Your task to perform on an android device: Search for Mexican restaurants on Maps Image 0: 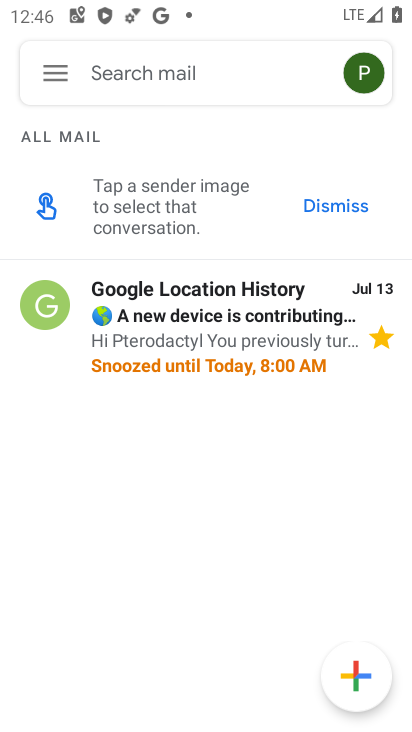
Step 0: press home button
Your task to perform on an android device: Search for Mexican restaurants on Maps Image 1: 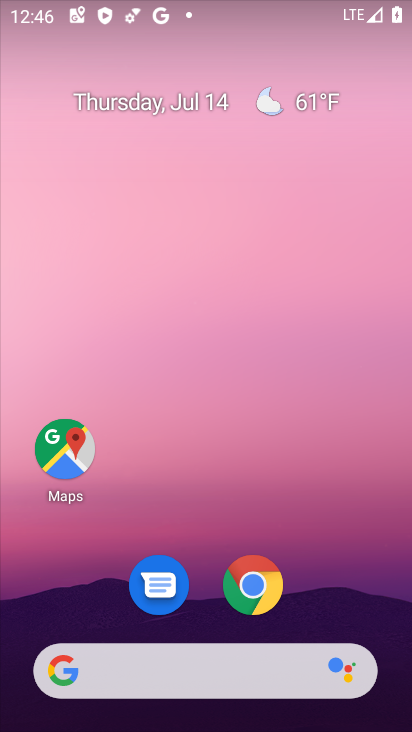
Step 1: click (66, 471)
Your task to perform on an android device: Search for Mexican restaurants on Maps Image 2: 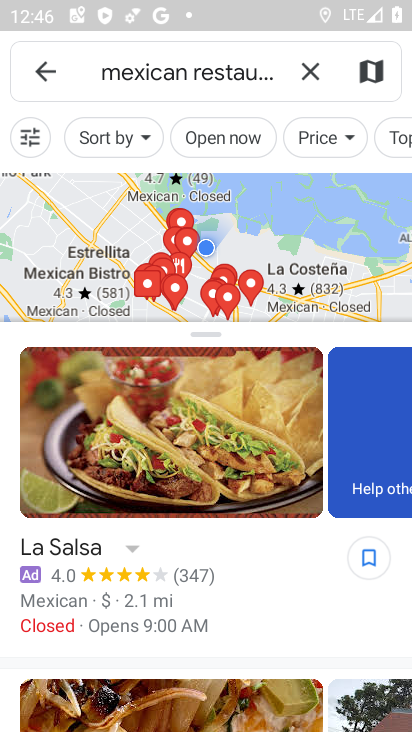
Step 2: click (312, 69)
Your task to perform on an android device: Search for Mexican restaurants on Maps Image 3: 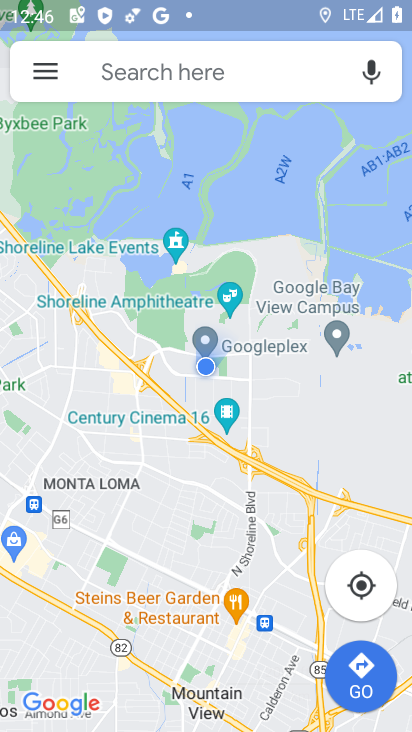
Step 3: click (264, 61)
Your task to perform on an android device: Search for Mexican restaurants on Maps Image 4: 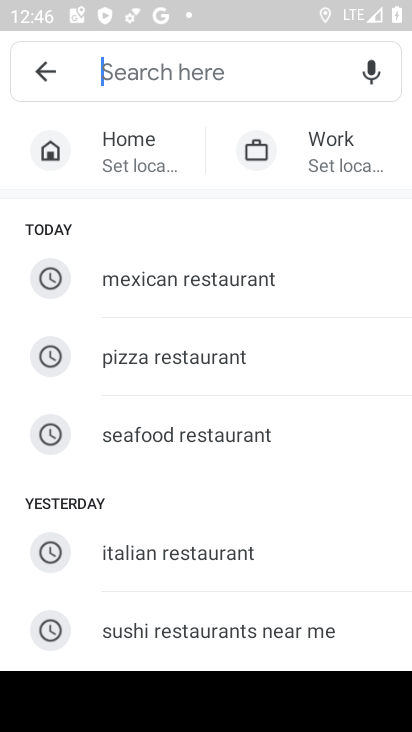
Step 4: click (224, 276)
Your task to perform on an android device: Search for Mexican restaurants on Maps Image 5: 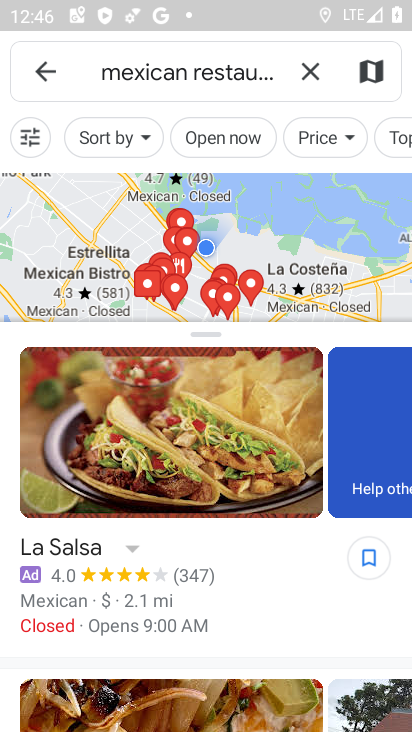
Step 5: task complete